Your task to perform on an android device: Go to notification settings Image 0: 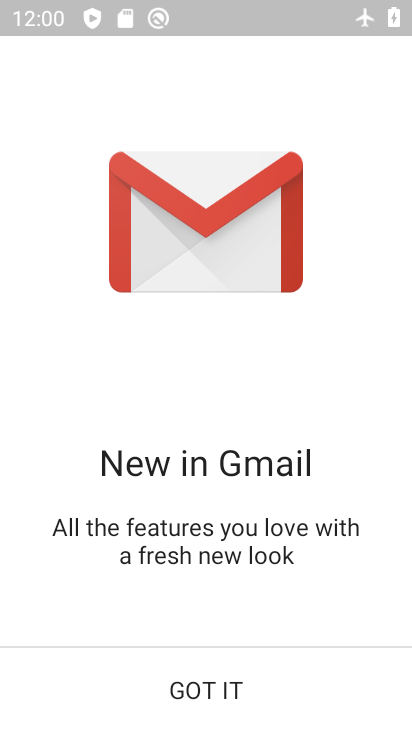
Step 0: press home button
Your task to perform on an android device: Go to notification settings Image 1: 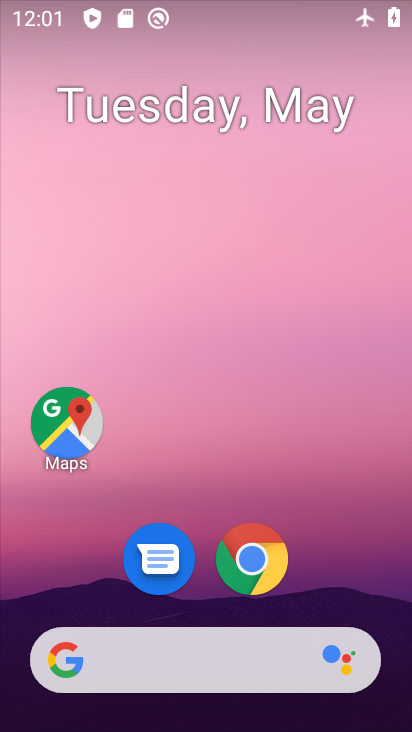
Step 1: drag from (103, 627) to (238, 161)
Your task to perform on an android device: Go to notification settings Image 2: 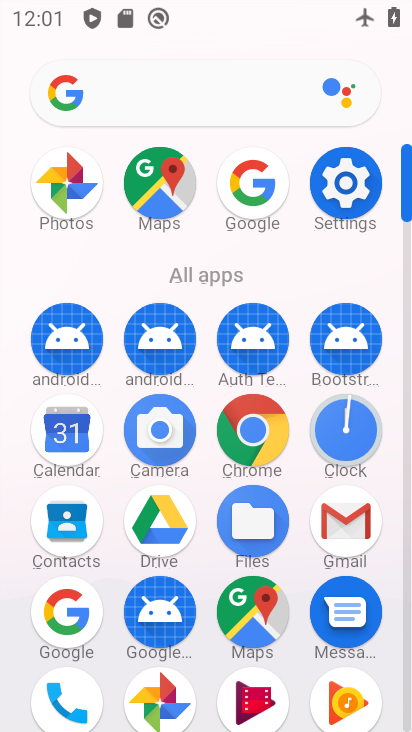
Step 2: drag from (135, 496) to (241, 266)
Your task to perform on an android device: Go to notification settings Image 3: 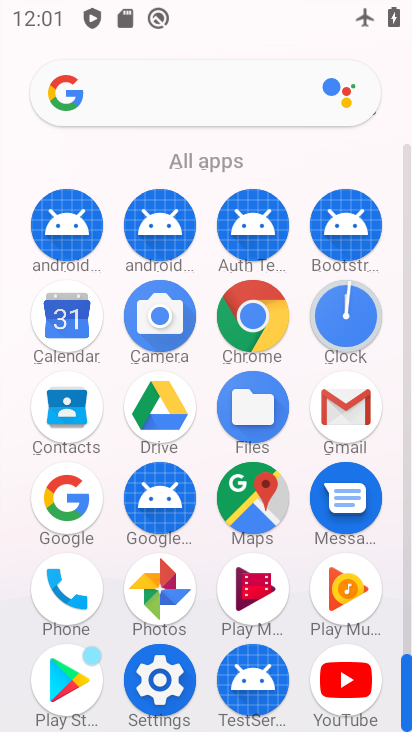
Step 3: click (154, 696)
Your task to perform on an android device: Go to notification settings Image 4: 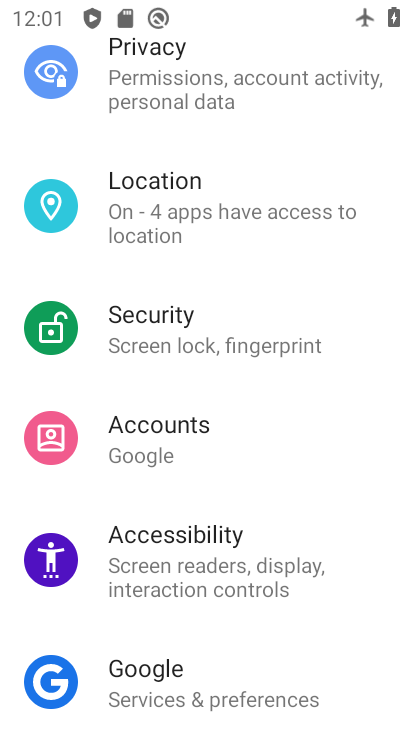
Step 4: drag from (101, 603) to (216, 703)
Your task to perform on an android device: Go to notification settings Image 5: 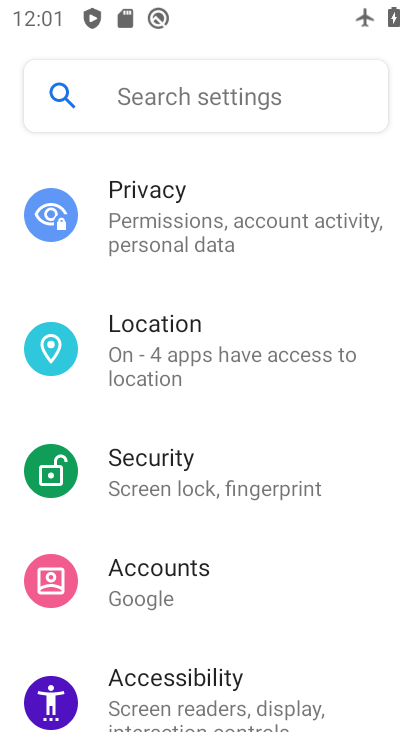
Step 5: drag from (253, 330) to (196, 613)
Your task to perform on an android device: Go to notification settings Image 6: 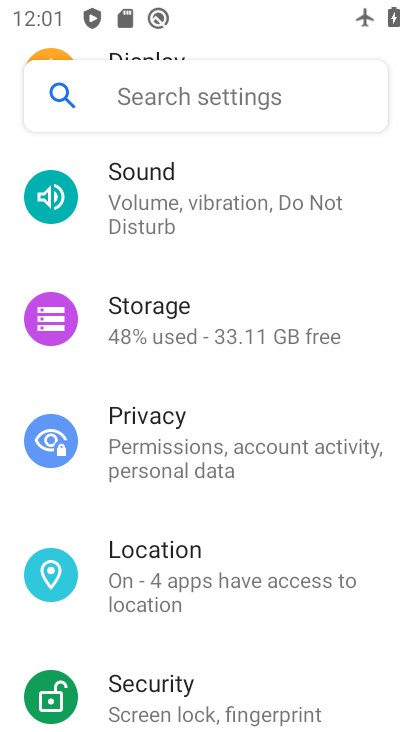
Step 6: drag from (301, 278) to (262, 574)
Your task to perform on an android device: Go to notification settings Image 7: 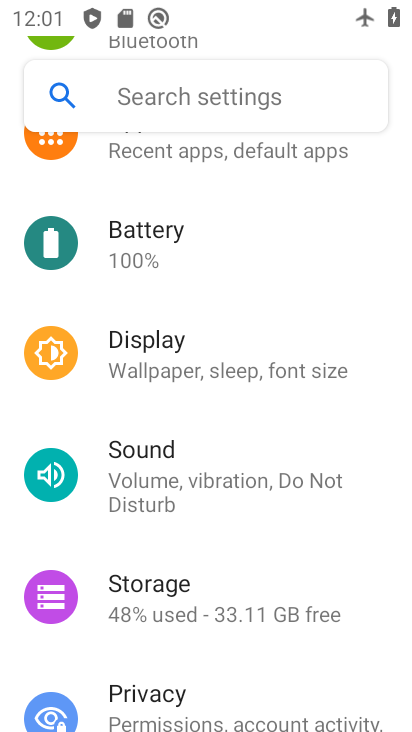
Step 7: click (277, 174)
Your task to perform on an android device: Go to notification settings Image 8: 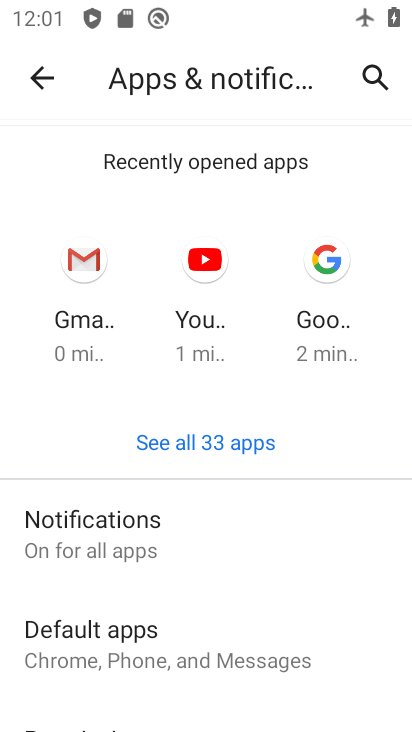
Step 8: click (224, 541)
Your task to perform on an android device: Go to notification settings Image 9: 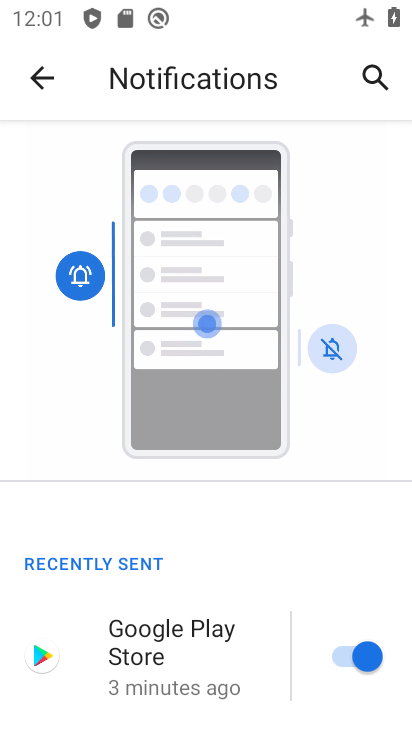
Step 9: task complete